Your task to perform on an android device: turn notification dots on Image 0: 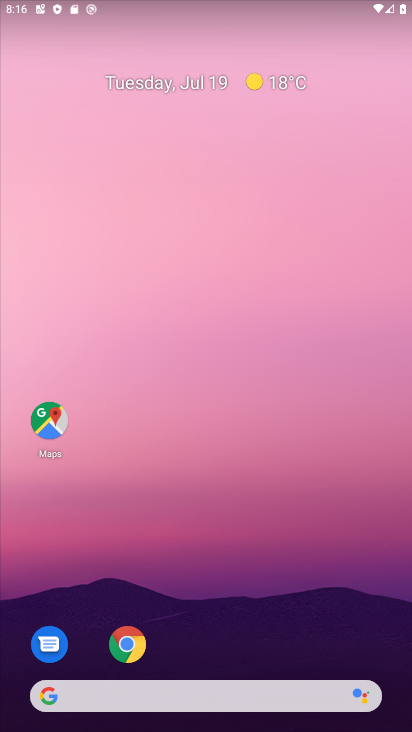
Step 0: drag from (206, 663) to (219, 5)
Your task to perform on an android device: turn notification dots on Image 1: 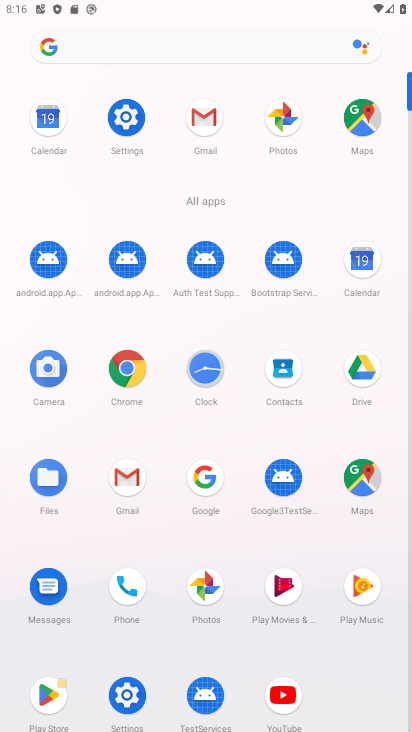
Step 1: click (122, 110)
Your task to perform on an android device: turn notification dots on Image 2: 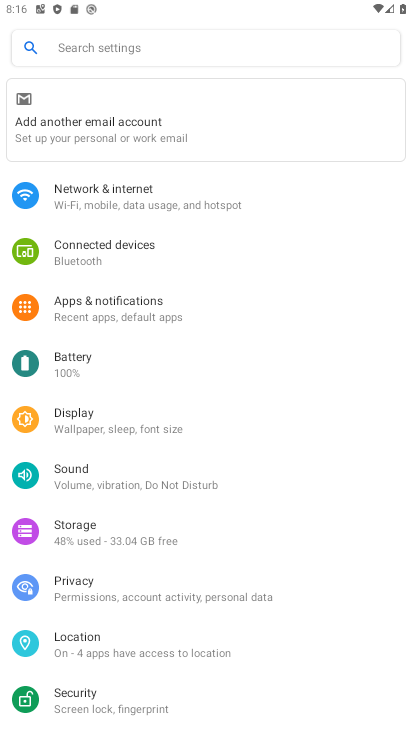
Step 2: click (124, 310)
Your task to perform on an android device: turn notification dots on Image 3: 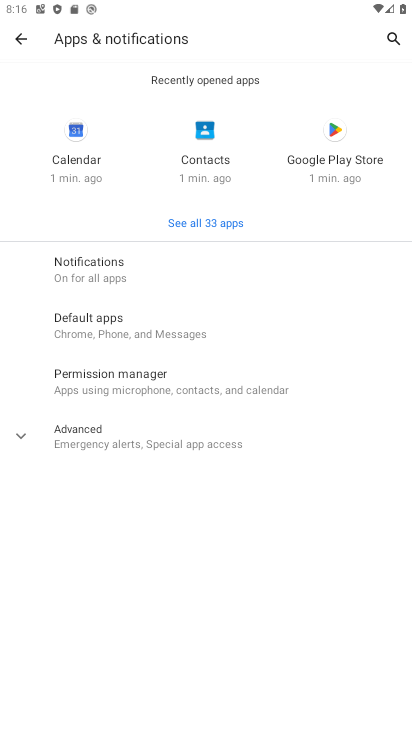
Step 3: click (92, 269)
Your task to perform on an android device: turn notification dots on Image 4: 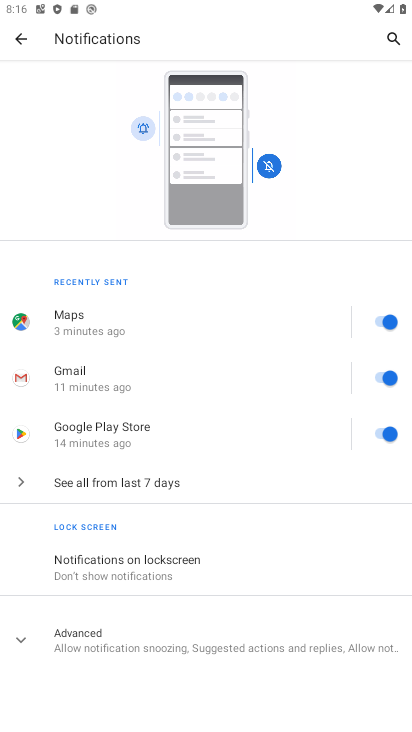
Step 4: click (104, 644)
Your task to perform on an android device: turn notification dots on Image 5: 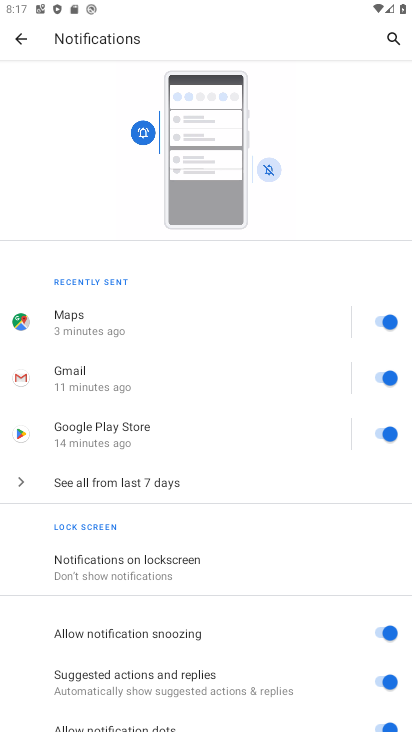
Step 5: task complete